Your task to perform on an android device: set default search engine in the chrome app Image 0: 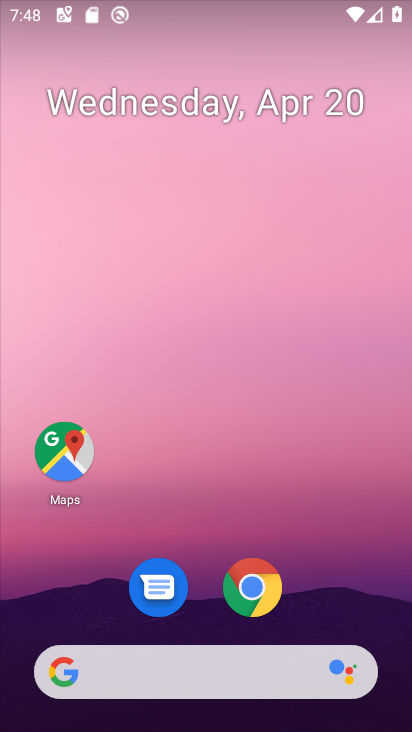
Step 0: click (254, 604)
Your task to perform on an android device: set default search engine in the chrome app Image 1: 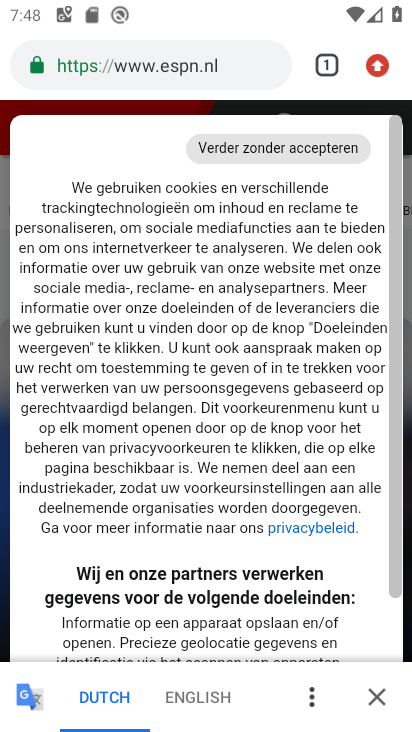
Step 1: click (369, 702)
Your task to perform on an android device: set default search engine in the chrome app Image 2: 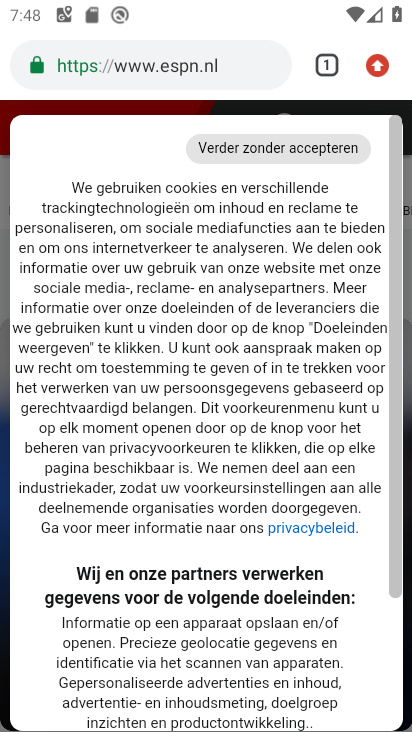
Step 2: click (376, 59)
Your task to perform on an android device: set default search engine in the chrome app Image 3: 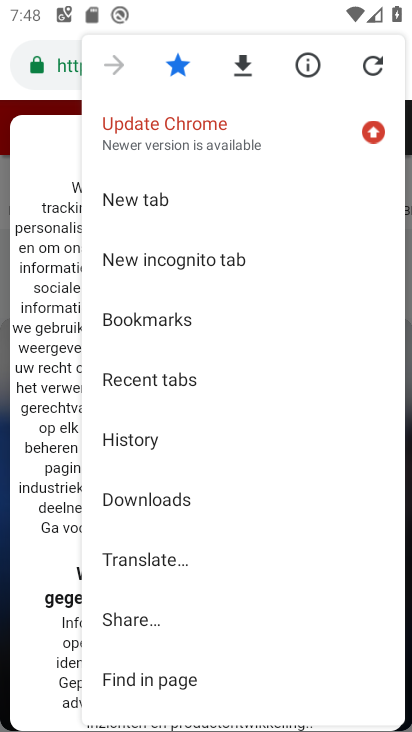
Step 3: drag from (241, 586) to (157, 235)
Your task to perform on an android device: set default search engine in the chrome app Image 4: 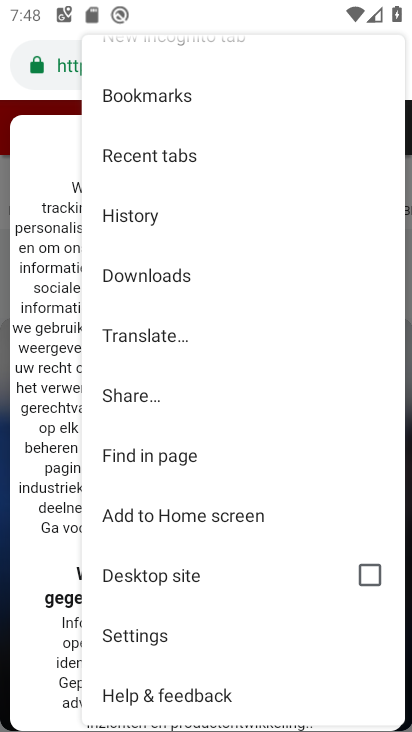
Step 4: click (192, 641)
Your task to perform on an android device: set default search engine in the chrome app Image 5: 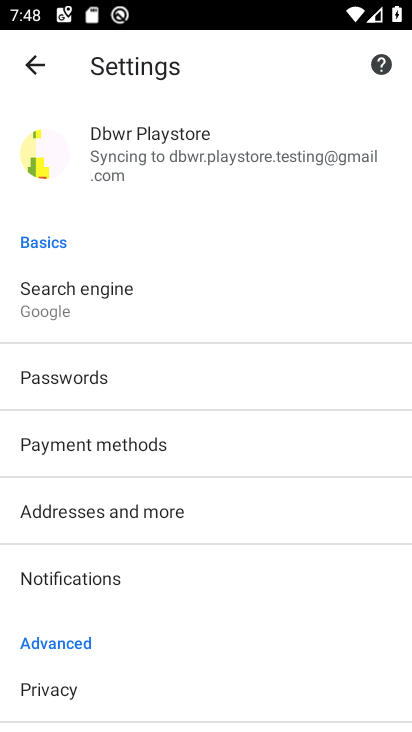
Step 5: click (176, 300)
Your task to perform on an android device: set default search engine in the chrome app Image 6: 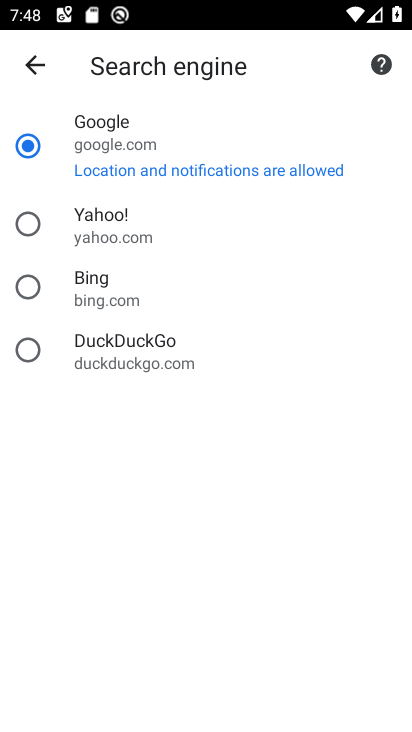
Step 6: click (31, 219)
Your task to perform on an android device: set default search engine in the chrome app Image 7: 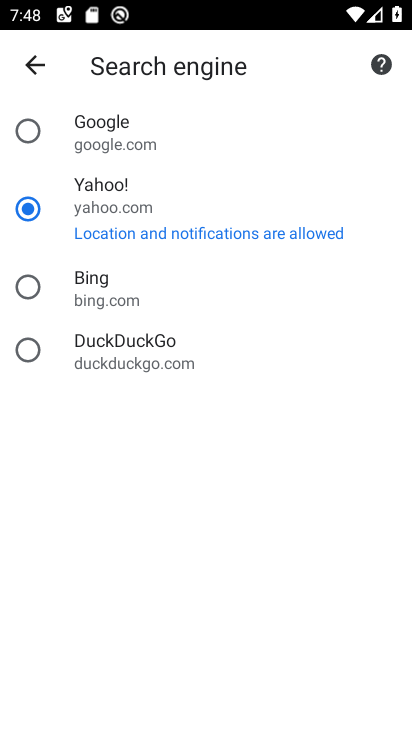
Step 7: task complete